Your task to perform on an android device: Go to Yahoo.com Image 0: 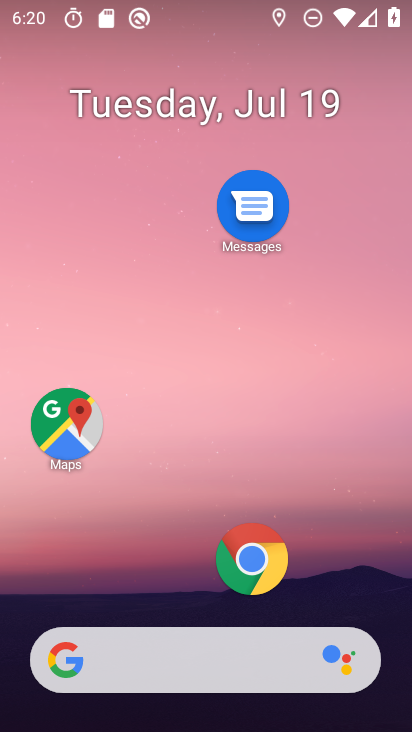
Step 0: click (271, 566)
Your task to perform on an android device: Go to Yahoo.com Image 1: 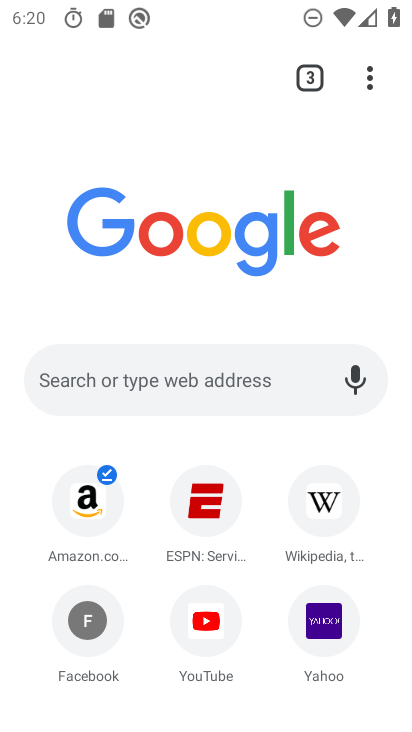
Step 1: click (313, 621)
Your task to perform on an android device: Go to Yahoo.com Image 2: 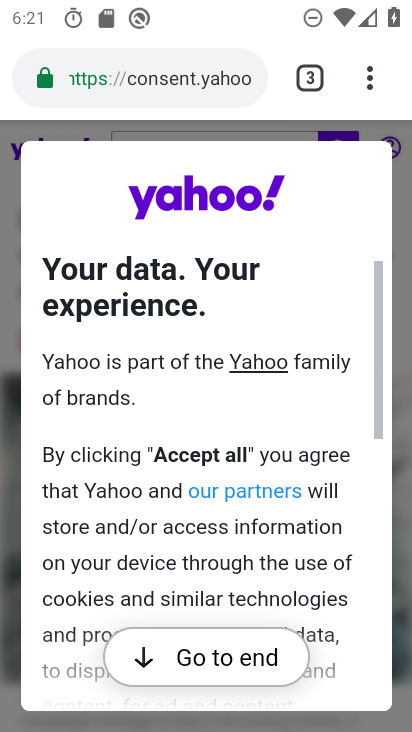
Step 2: task complete